Your task to perform on an android device: Go to Google Image 0: 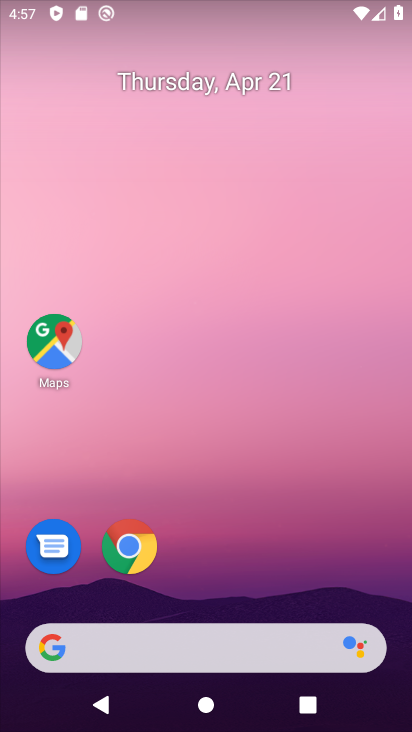
Step 0: drag from (263, 546) to (263, 91)
Your task to perform on an android device: Go to Google Image 1: 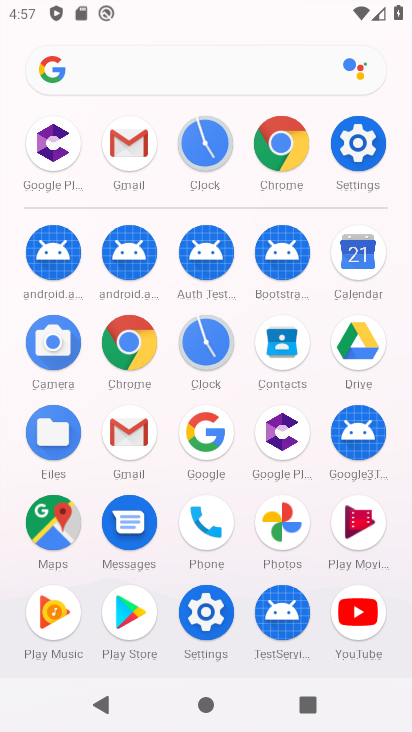
Step 1: click (203, 429)
Your task to perform on an android device: Go to Google Image 2: 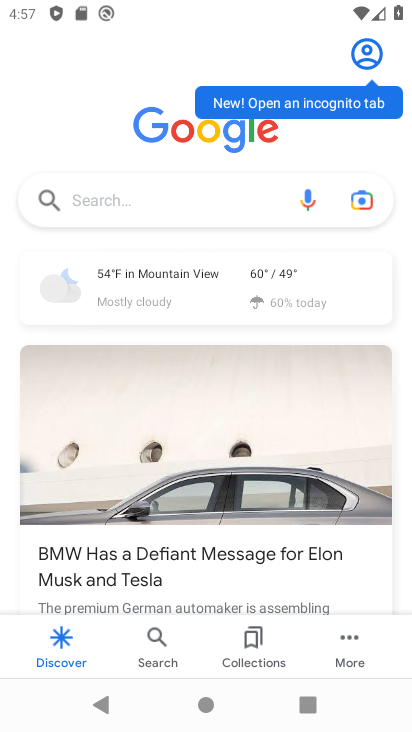
Step 2: task complete